Your task to perform on an android device: Clear the cart on walmart.com. Add acer predator to the cart on walmart.com, then select checkout. Image 0: 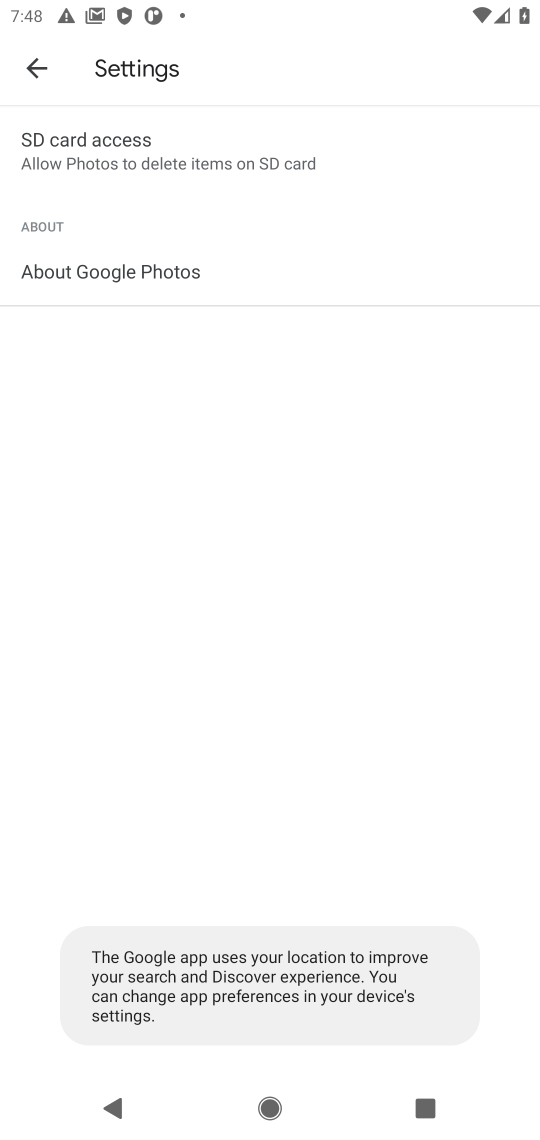
Step 0: press home button
Your task to perform on an android device: Clear the cart on walmart.com. Add acer predator to the cart on walmart.com, then select checkout. Image 1: 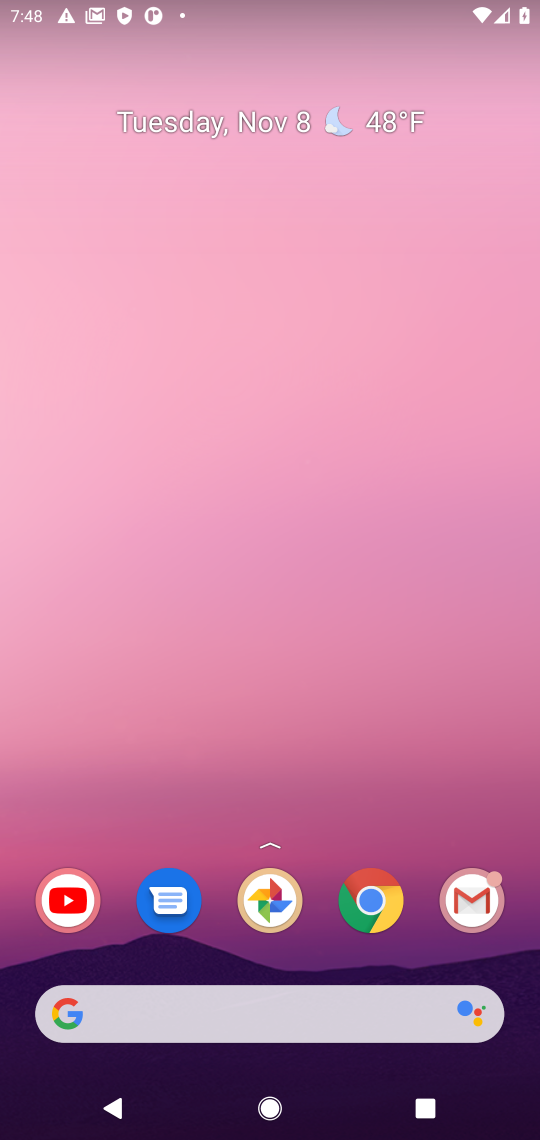
Step 1: click (369, 913)
Your task to perform on an android device: Clear the cart on walmart.com. Add acer predator to the cart on walmart.com, then select checkout. Image 2: 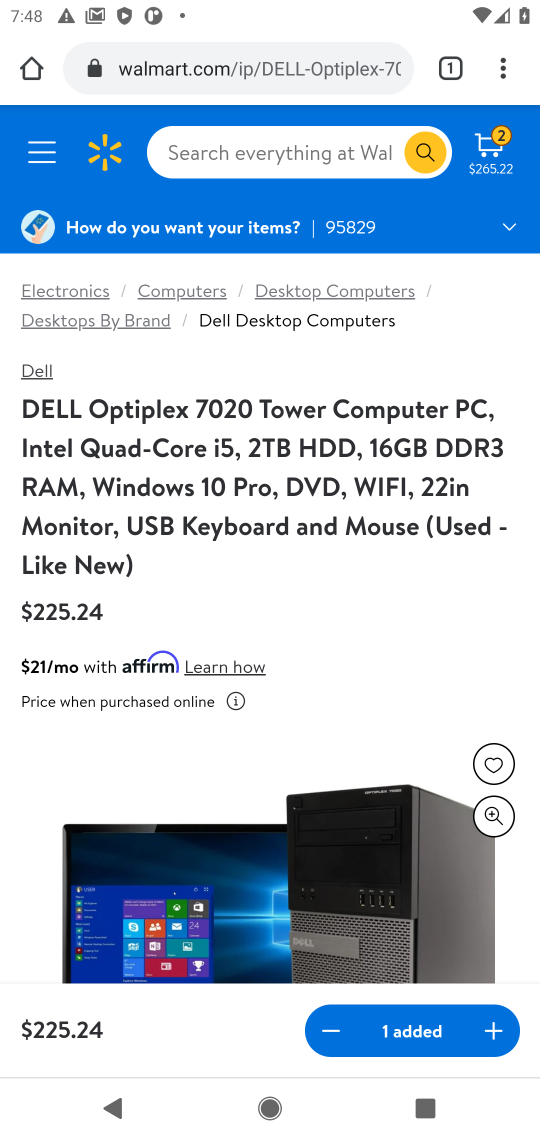
Step 2: click (196, 58)
Your task to perform on an android device: Clear the cart on walmart.com. Add acer predator to the cart on walmart.com, then select checkout. Image 3: 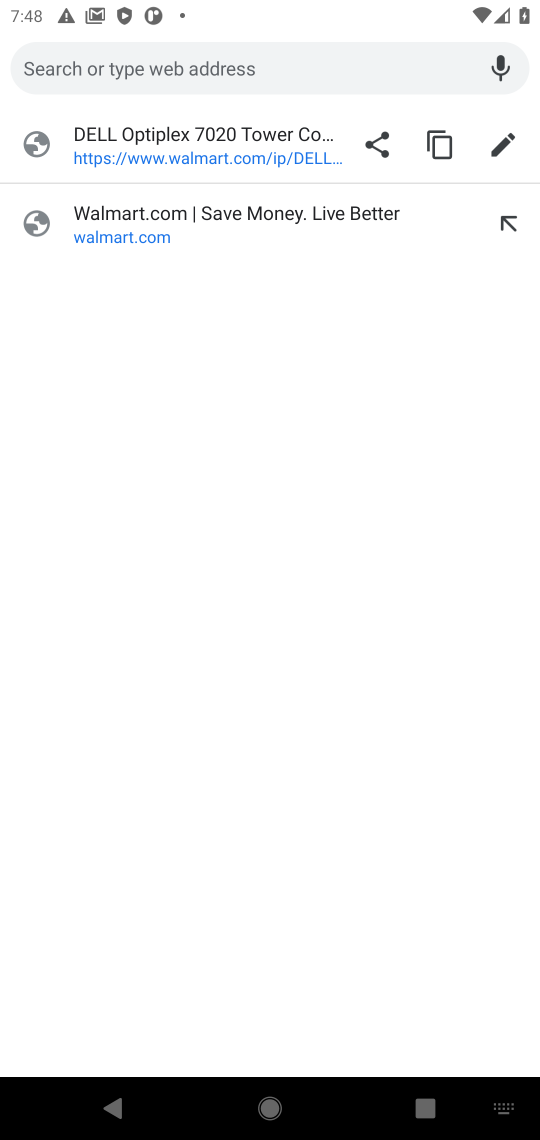
Step 3: type "walmart"
Your task to perform on an android device: Clear the cart on walmart.com. Add acer predator to the cart on walmart.com, then select checkout. Image 4: 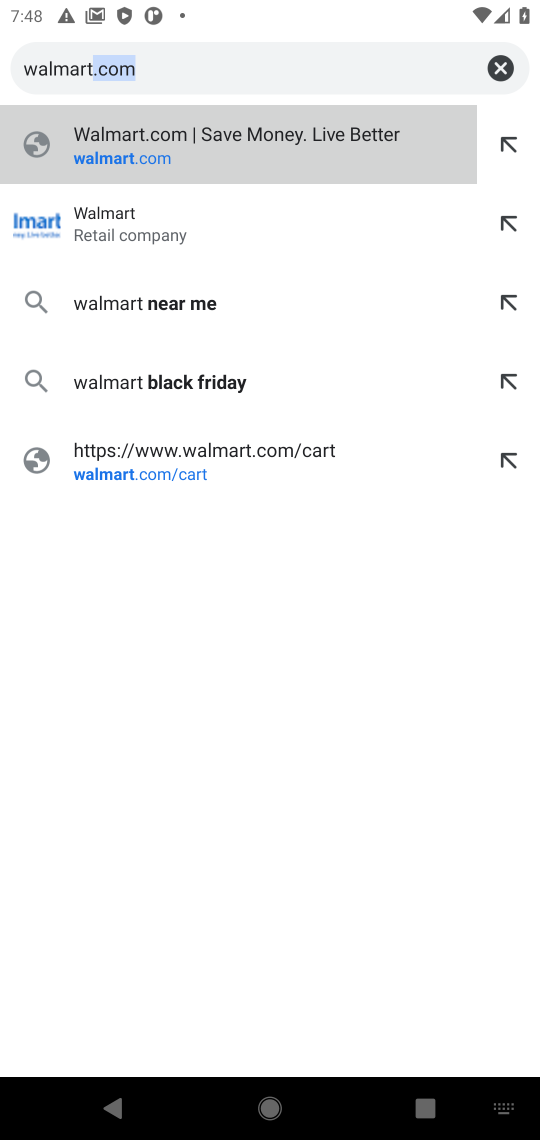
Step 4: click (119, 215)
Your task to perform on an android device: Clear the cart on walmart.com. Add acer predator to the cart on walmart.com, then select checkout. Image 5: 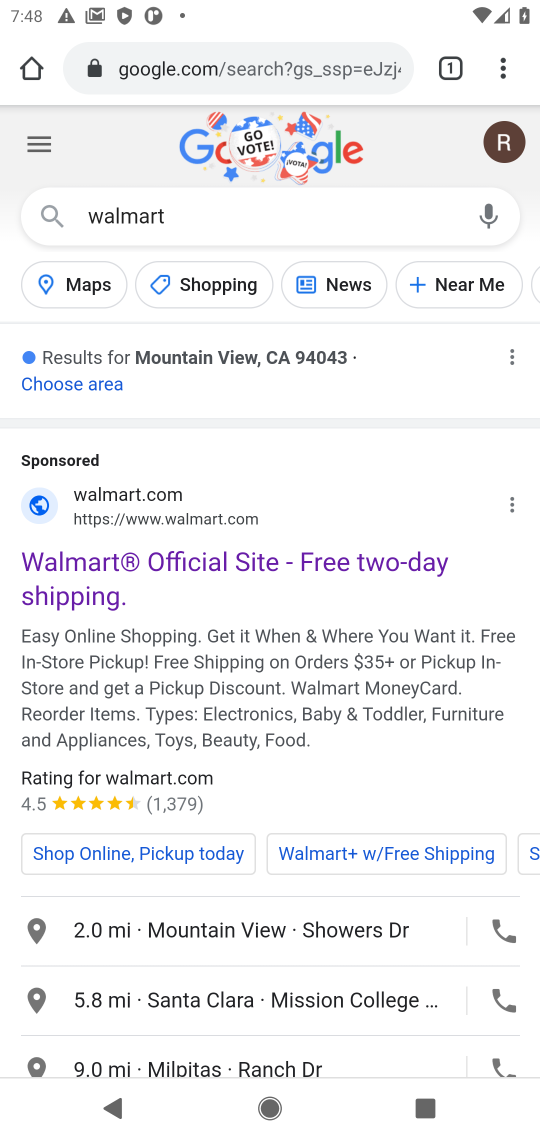
Step 5: drag from (175, 662) to (349, 276)
Your task to perform on an android device: Clear the cart on walmart.com. Add acer predator to the cart on walmart.com, then select checkout. Image 6: 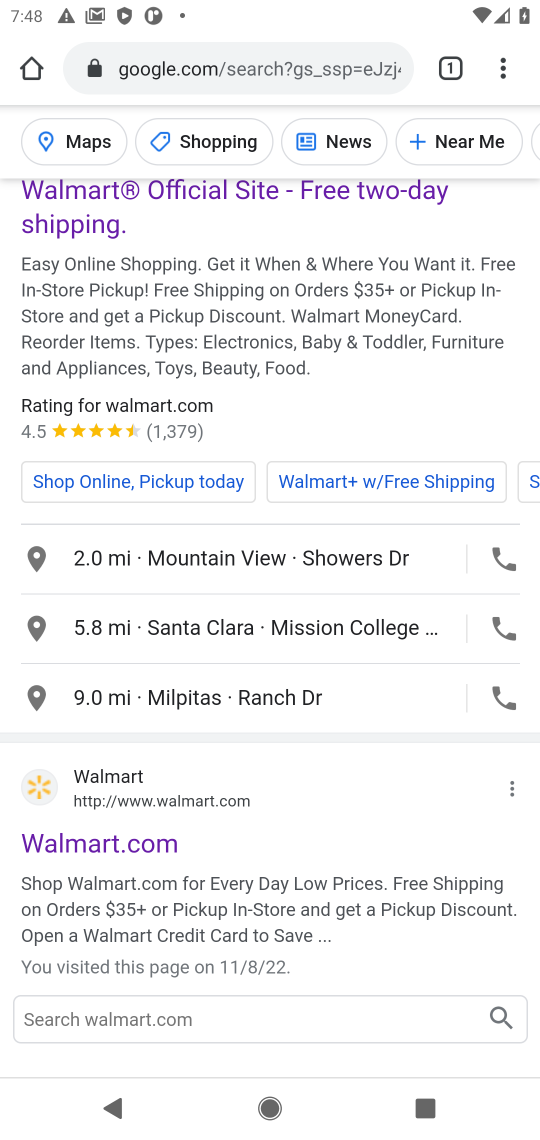
Step 6: click (103, 843)
Your task to perform on an android device: Clear the cart on walmart.com. Add acer predator to the cart on walmart.com, then select checkout. Image 7: 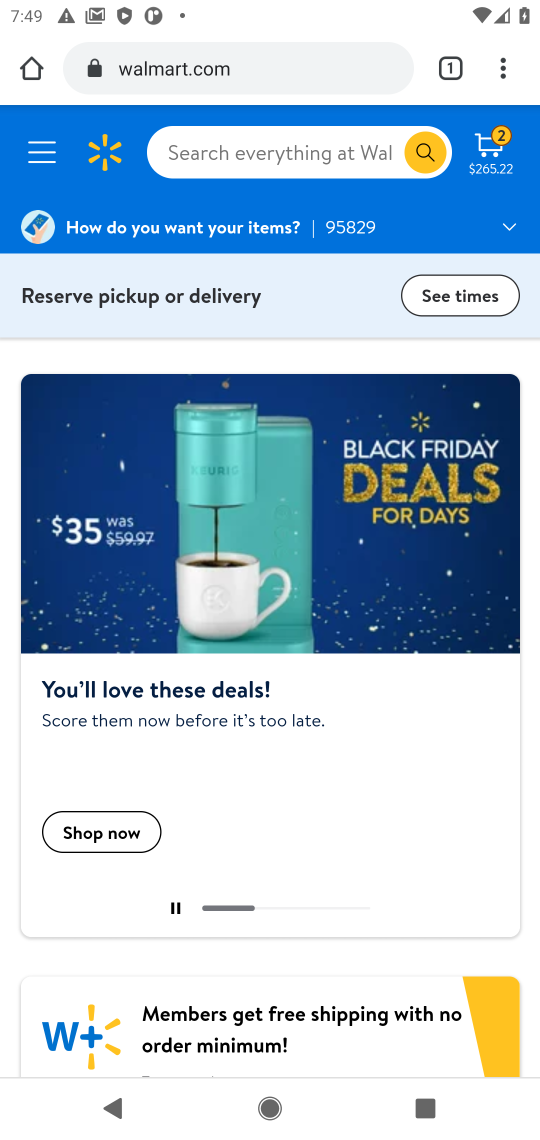
Step 7: click (231, 144)
Your task to perform on an android device: Clear the cart on walmart.com. Add acer predator to the cart on walmart.com, then select checkout. Image 8: 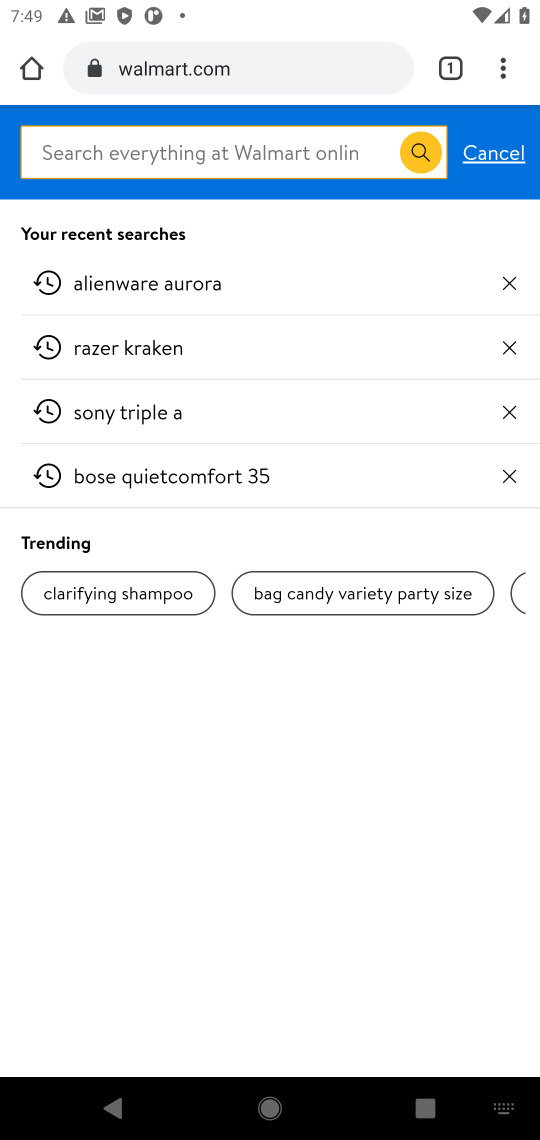
Step 8: type "acer predator"
Your task to perform on an android device: Clear the cart on walmart.com. Add acer predator to the cart on walmart.com, then select checkout. Image 9: 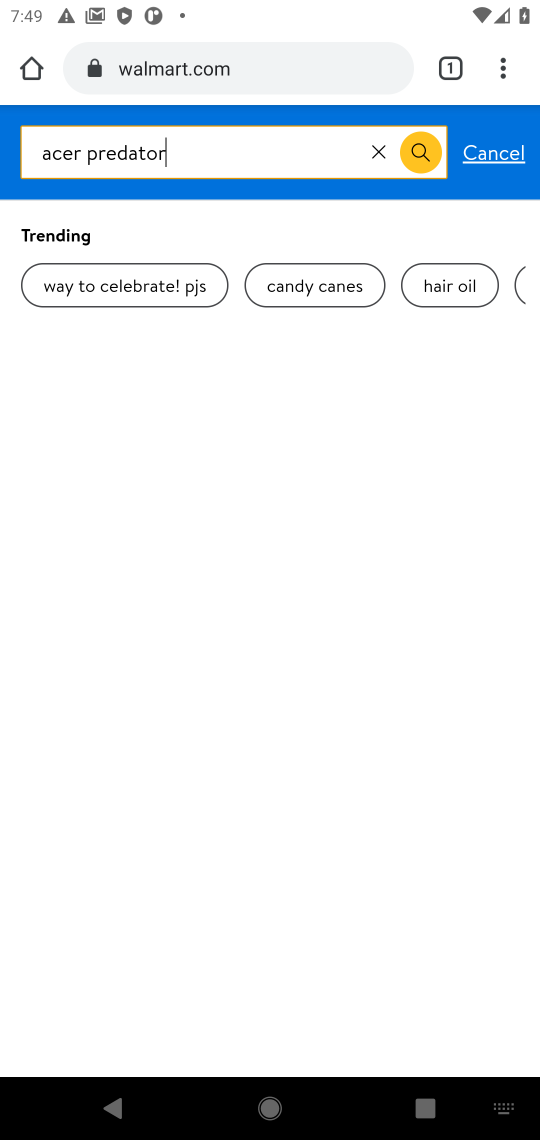
Step 9: type ""
Your task to perform on an android device: Clear the cart on walmart.com. Add acer predator to the cart on walmart.com, then select checkout. Image 10: 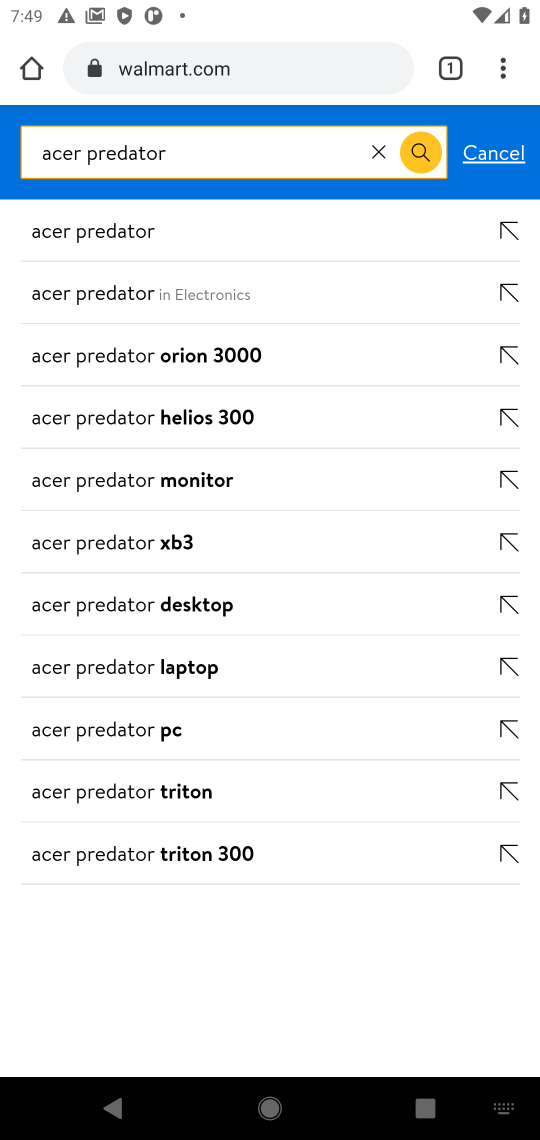
Step 10: click (110, 230)
Your task to perform on an android device: Clear the cart on walmart.com. Add acer predator to the cart on walmart.com, then select checkout. Image 11: 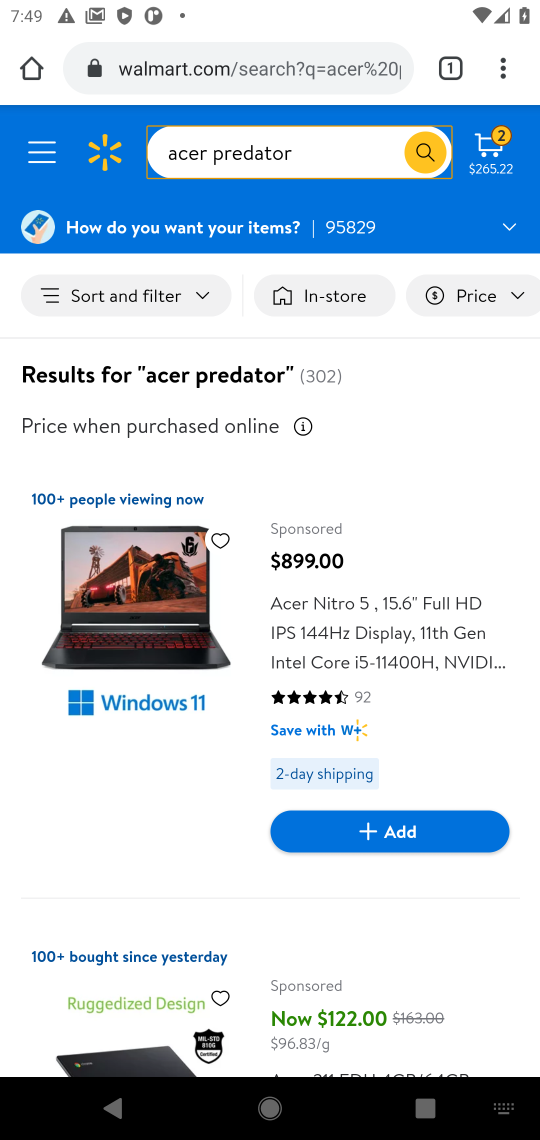
Step 11: drag from (232, 834) to (251, 296)
Your task to perform on an android device: Clear the cart on walmart.com. Add acer predator to the cart on walmart.com, then select checkout. Image 12: 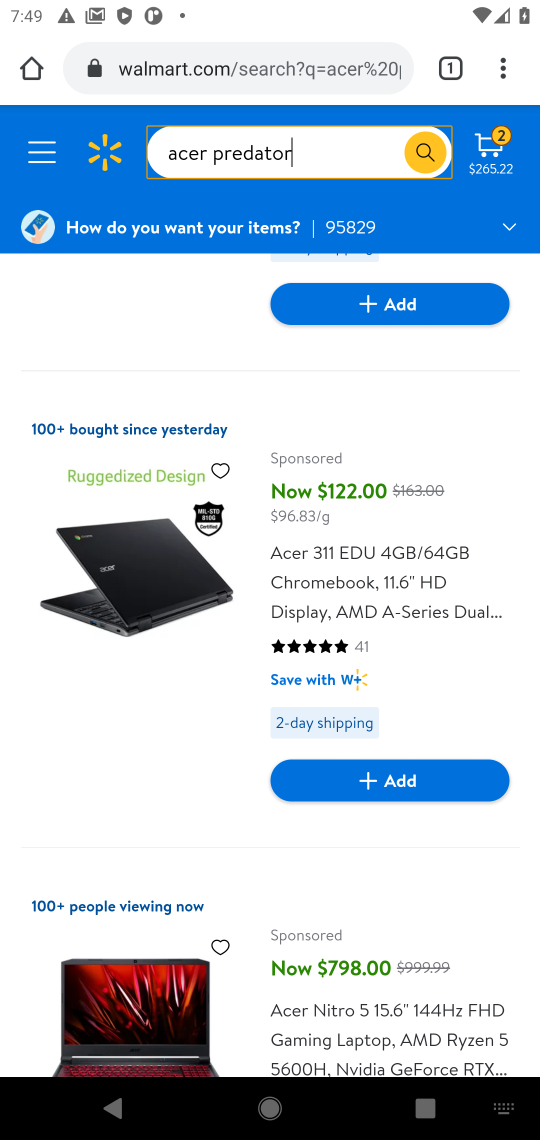
Step 12: drag from (299, 1005) to (266, 320)
Your task to perform on an android device: Clear the cart on walmart.com. Add acer predator to the cart on walmart.com, then select checkout. Image 13: 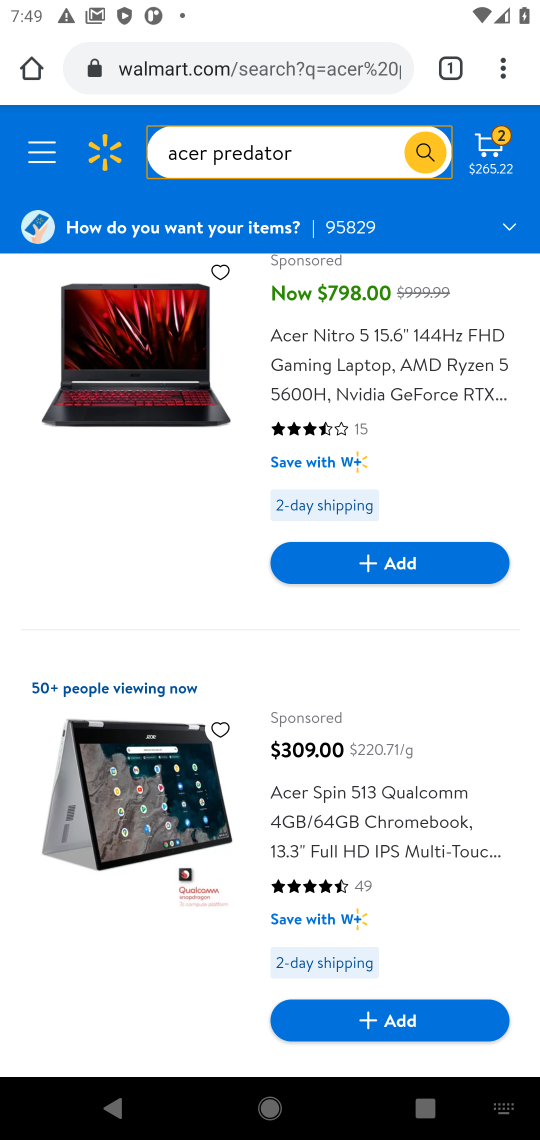
Step 13: drag from (277, 821) to (266, 333)
Your task to perform on an android device: Clear the cart on walmart.com. Add acer predator to the cart on walmart.com, then select checkout. Image 14: 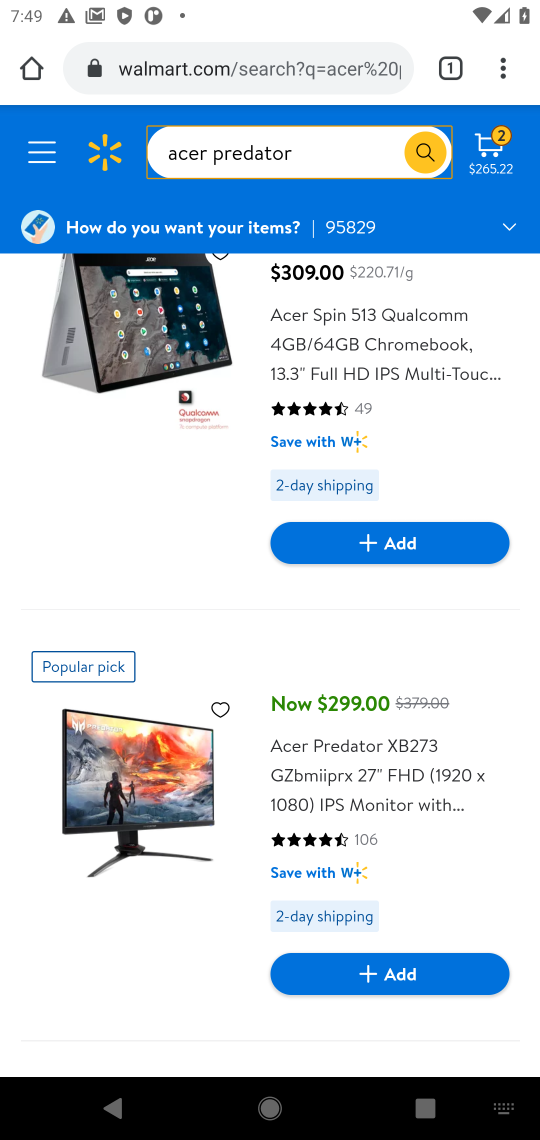
Step 14: click (329, 760)
Your task to perform on an android device: Clear the cart on walmart.com. Add acer predator to the cart on walmart.com, then select checkout. Image 15: 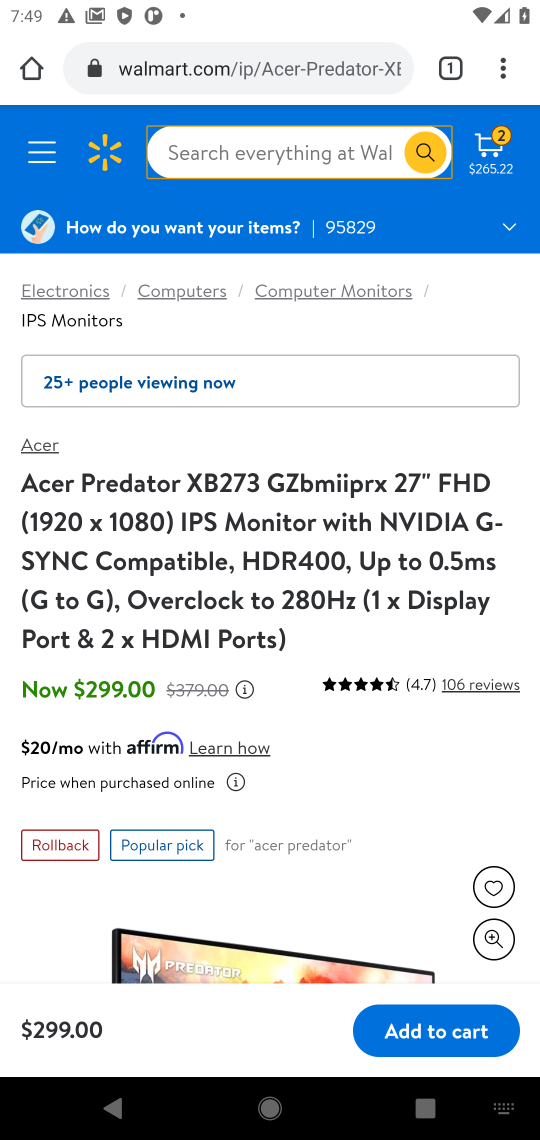
Step 15: drag from (252, 875) to (197, 389)
Your task to perform on an android device: Clear the cart on walmart.com. Add acer predator to the cart on walmart.com, then select checkout. Image 16: 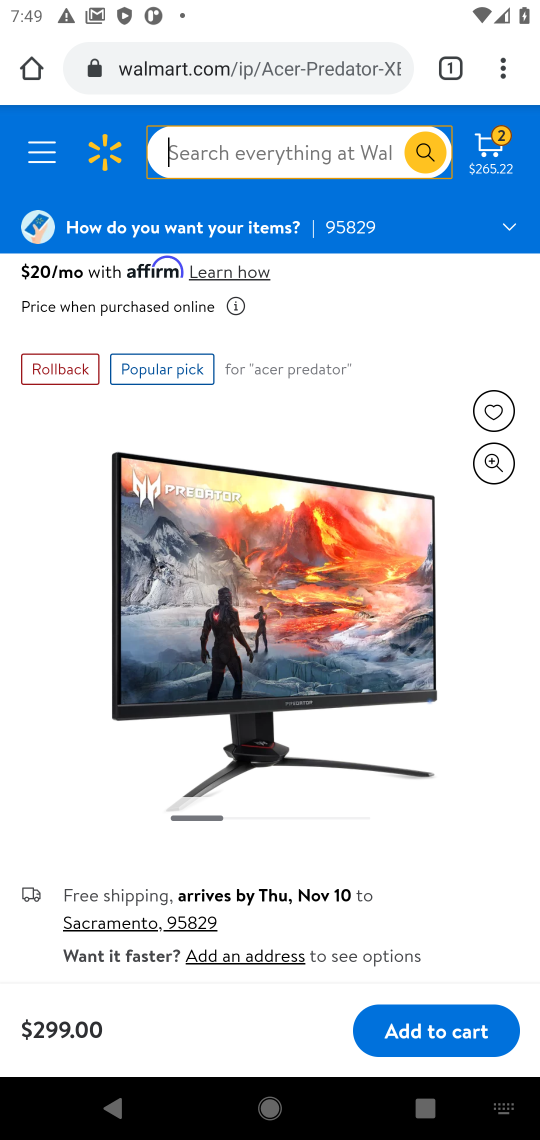
Step 16: drag from (308, 792) to (290, 340)
Your task to perform on an android device: Clear the cart on walmart.com. Add acer predator to the cart on walmart.com, then select checkout. Image 17: 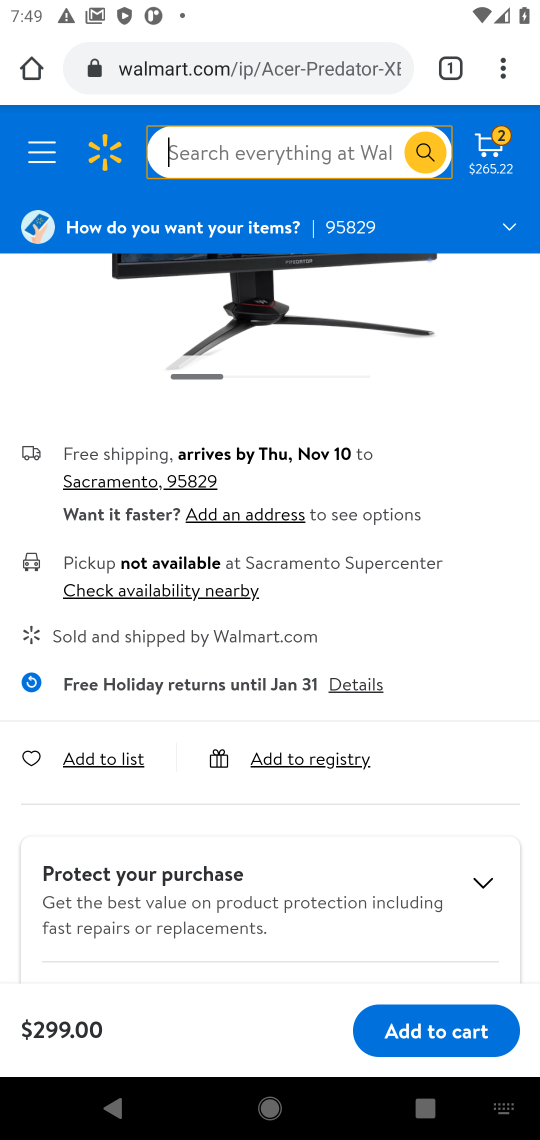
Step 17: click (447, 1026)
Your task to perform on an android device: Clear the cart on walmart.com. Add acer predator to the cart on walmart.com, then select checkout. Image 18: 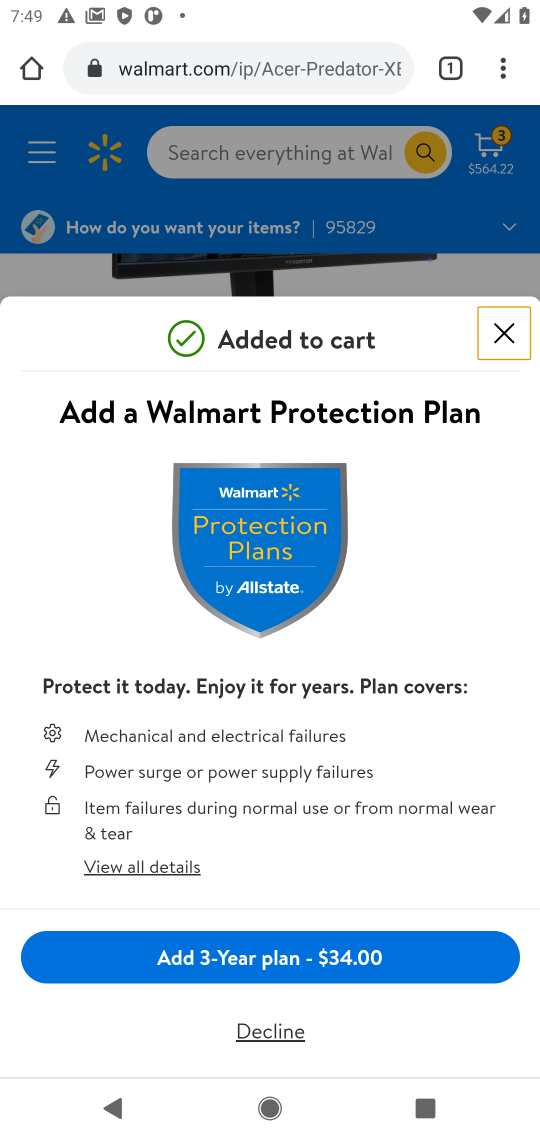
Step 18: click (501, 332)
Your task to perform on an android device: Clear the cart on walmart.com. Add acer predator to the cart on walmart.com, then select checkout. Image 19: 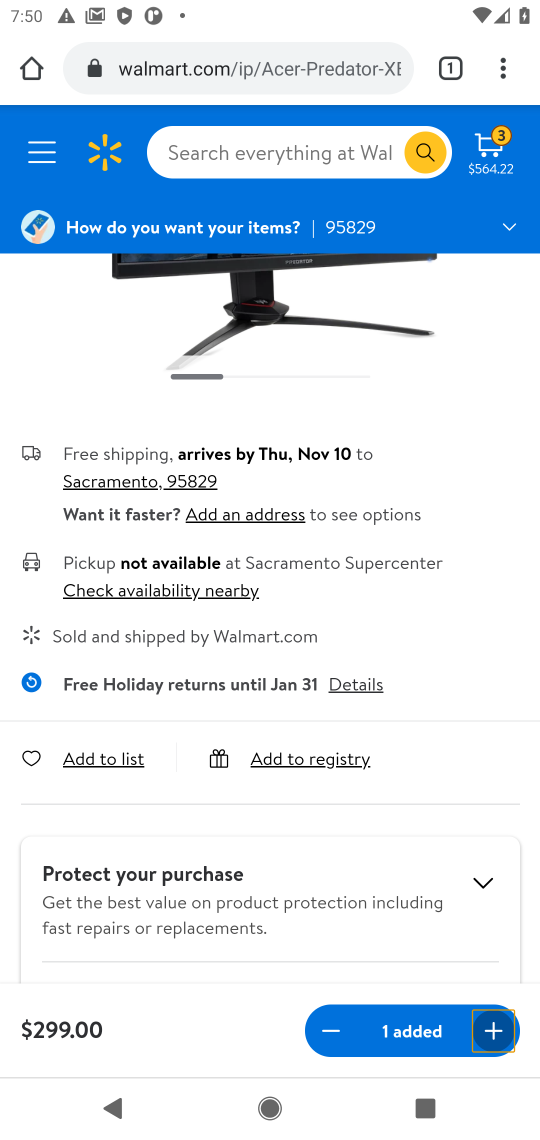
Step 19: click (498, 157)
Your task to perform on an android device: Clear the cart on walmart.com. Add acer predator to the cart on walmart.com, then select checkout. Image 20: 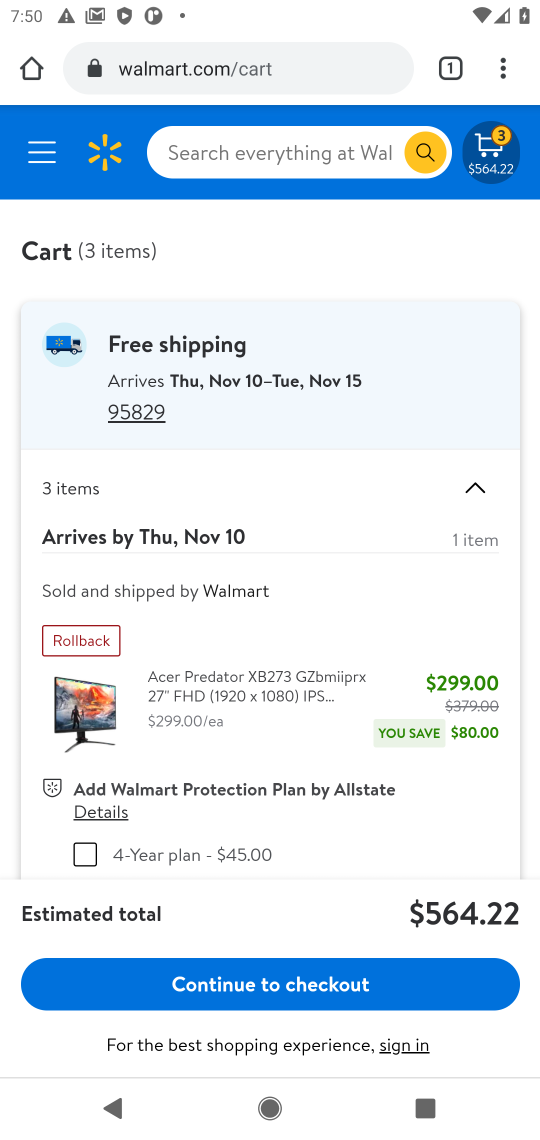
Step 20: click (245, 993)
Your task to perform on an android device: Clear the cart on walmart.com. Add acer predator to the cart on walmart.com, then select checkout. Image 21: 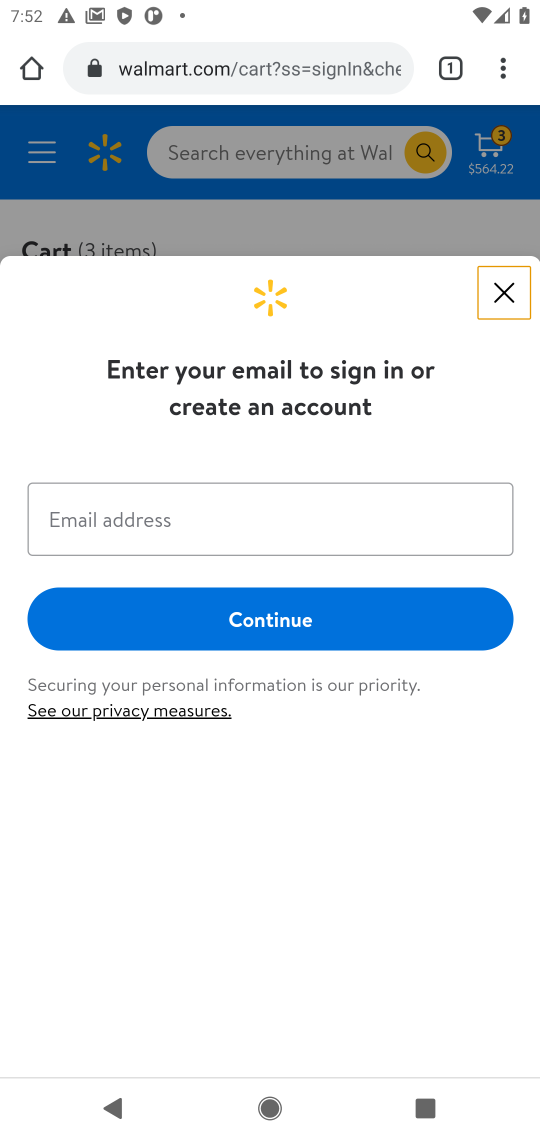
Step 21: task complete